Your task to perform on an android device: turn on showing notifications on the lock screen Image 0: 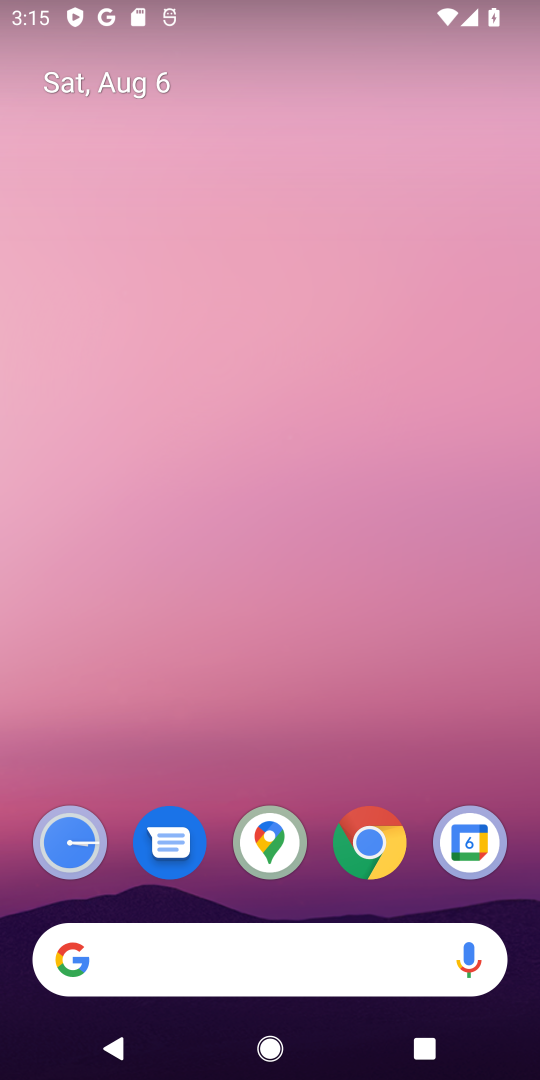
Step 0: drag from (513, 1020) to (353, 128)
Your task to perform on an android device: turn on showing notifications on the lock screen Image 1: 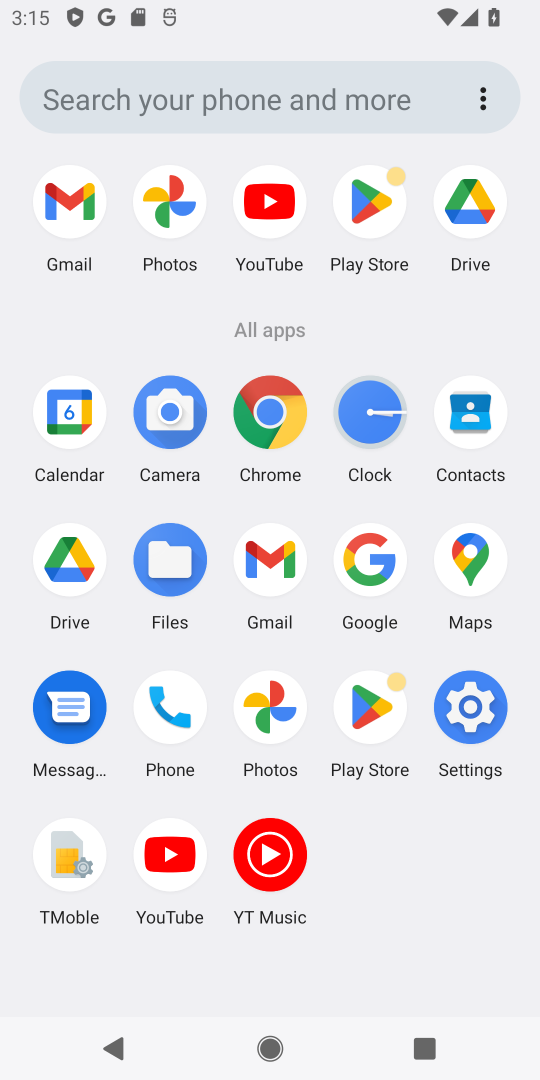
Step 1: click (472, 703)
Your task to perform on an android device: turn on showing notifications on the lock screen Image 2: 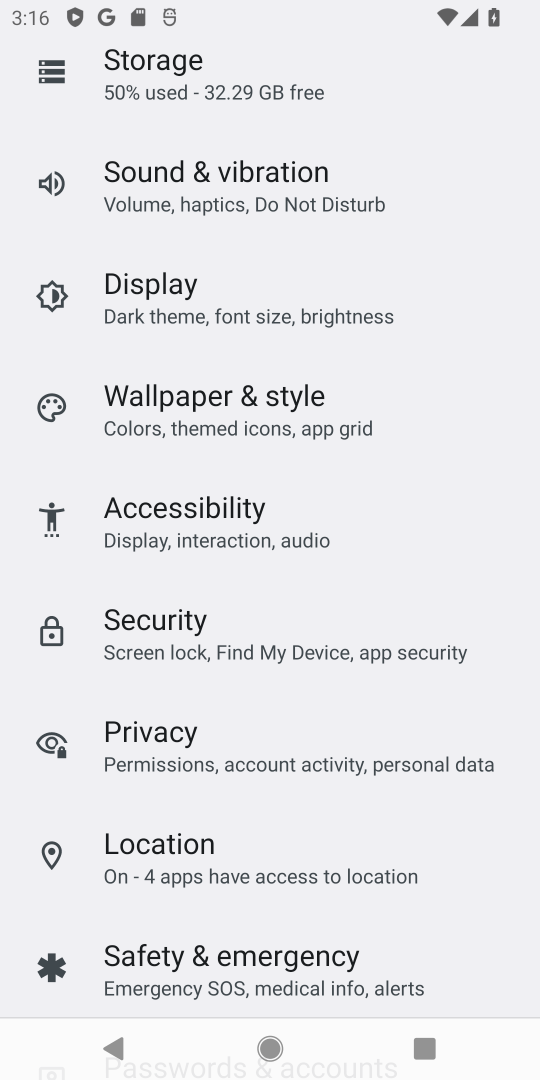
Step 2: drag from (376, 205) to (378, 646)
Your task to perform on an android device: turn on showing notifications on the lock screen Image 3: 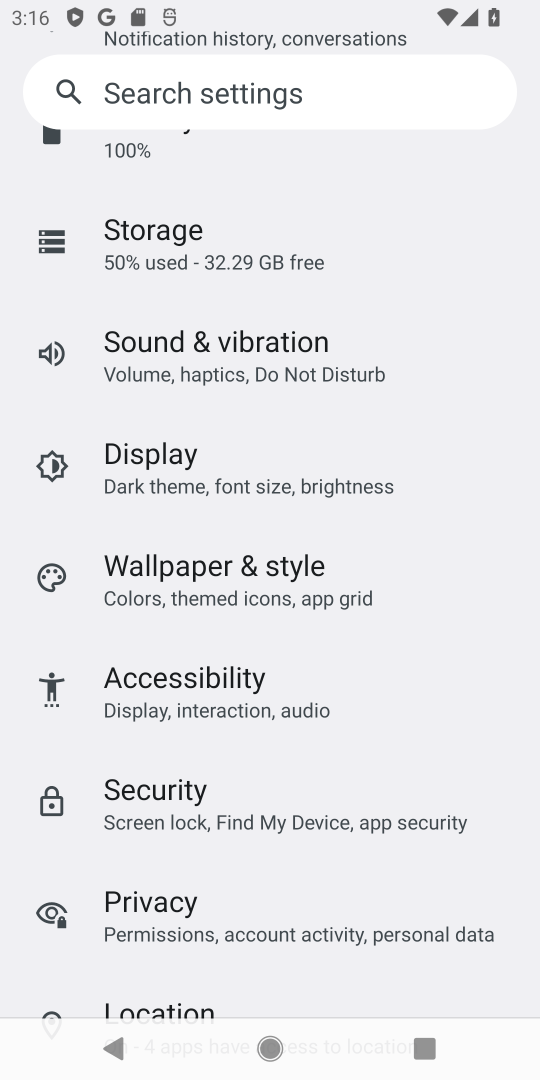
Step 3: drag from (388, 183) to (410, 700)
Your task to perform on an android device: turn on showing notifications on the lock screen Image 4: 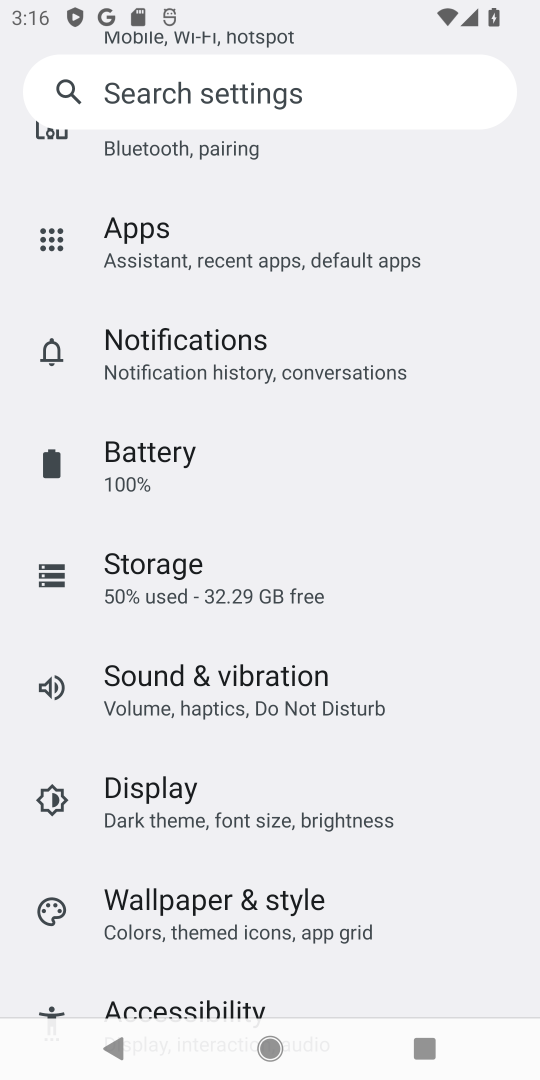
Step 4: click (274, 342)
Your task to perform on an android device: turn on showing notifications on the lock screen Image 5: 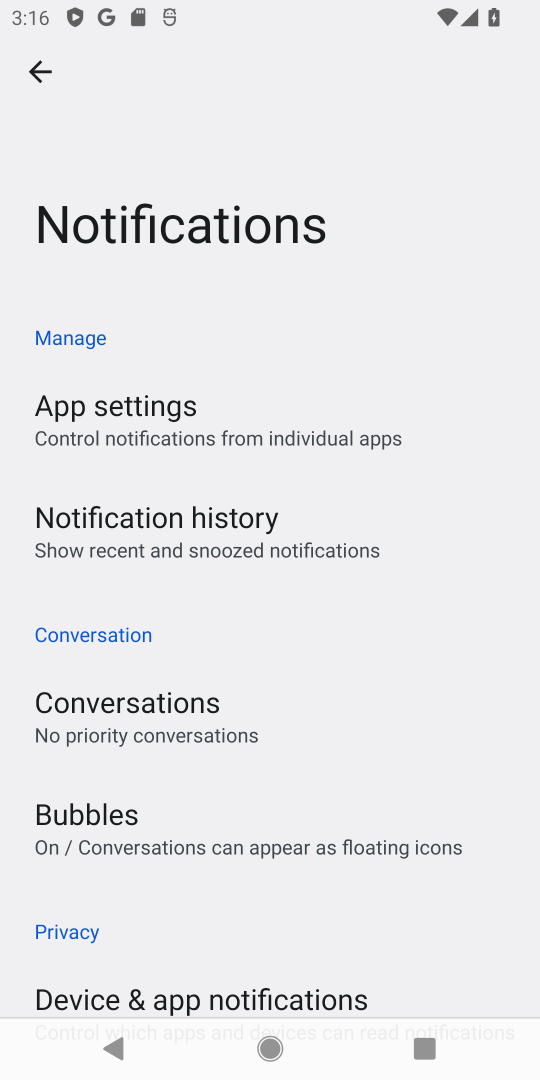
Step 5: drag from (436, 935) to (445, 444)
Your task to perform on an android device: turn on showing notifications on the lock screen Image 6: 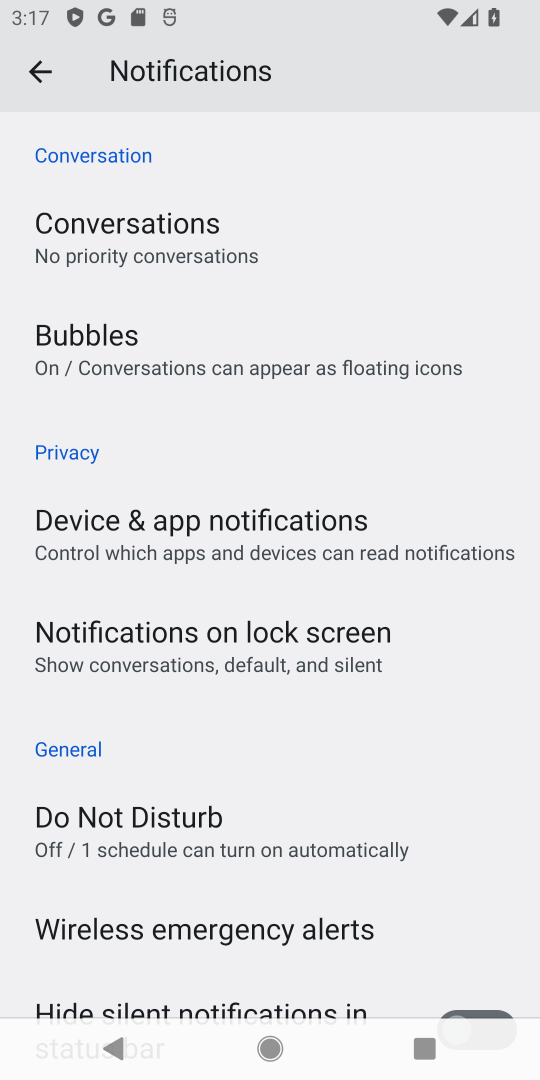
Step 6: click (296, 642)
Your task to perform on an android device: turn on showing notifications on the lock screen Image 7: 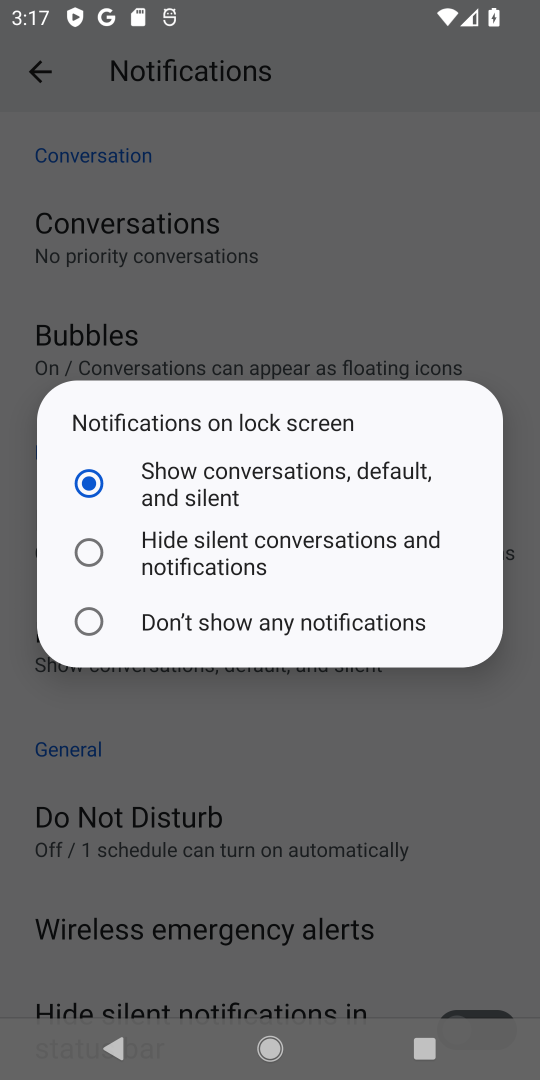
Step 7: task complete